Your task to perform on an android device: turn on priority inbox in the gmail app Image 0: 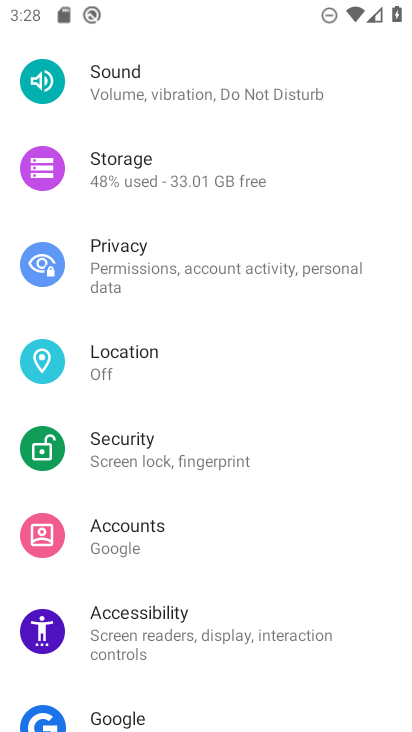
Step 0: drag from (125, 428) to (163, 355)
Your task to perform on an android device: turn on priority inbox in the gmail app Image 1: 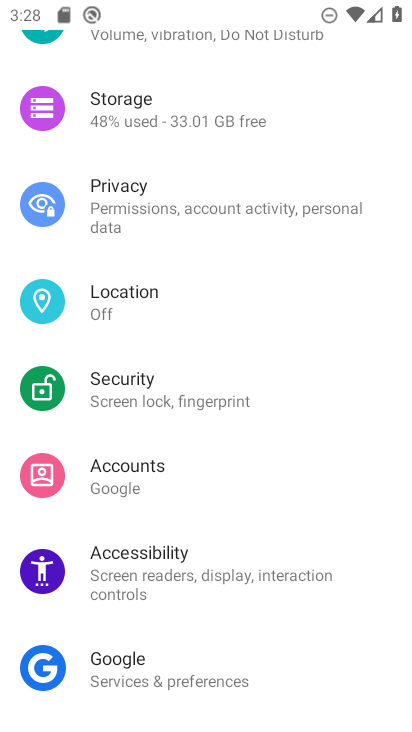
Step 1: press home button
Your task to perform on an android device: turn on priority inbox in the gmail app Image 2: 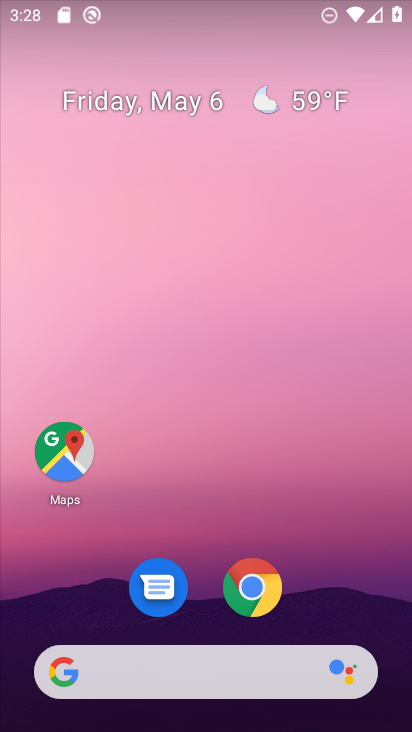
Step 2: click (280, 587)
Your task to perform on an android device: turn on priority inbox in the gmail app Image 3: 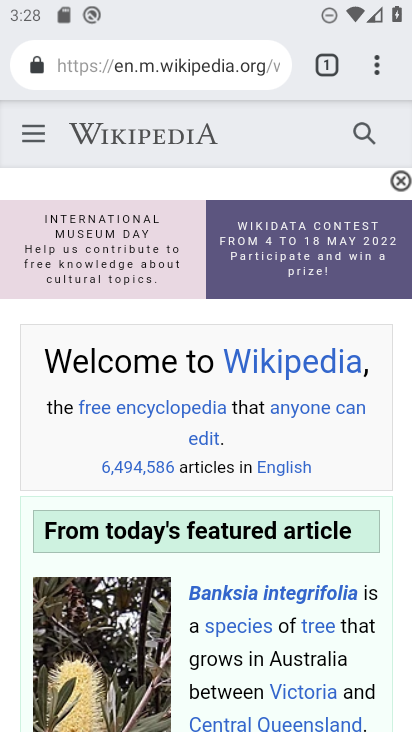
Step 3: press home button
Your task to perform on an android device: turn on priority inbox in the gmail app Image 4: 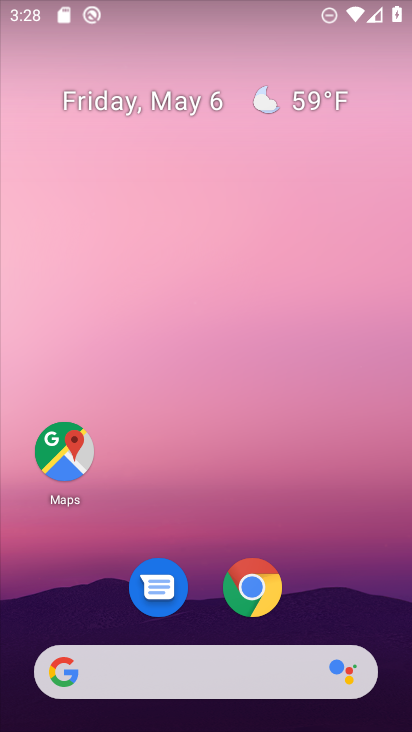
Step 4: drag from (370, 604) to (370, 112)
Your task to perform on an android device: turn on priority inbox in the gmail app Image 5: 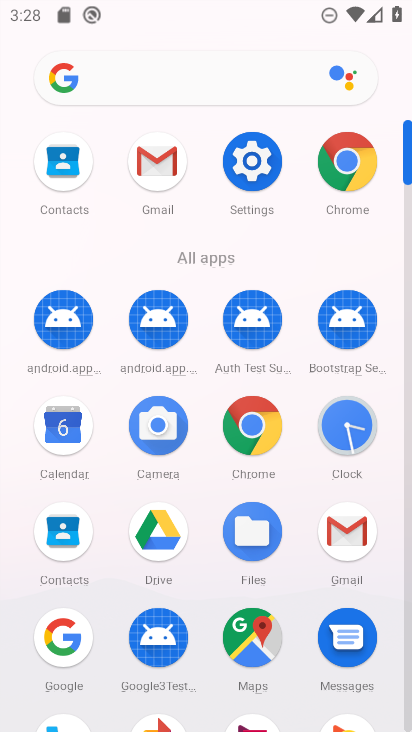
Step 5: click (144, 174)
Your task to perform on an android device: turn on priority inbox in the gmail app Image 6: 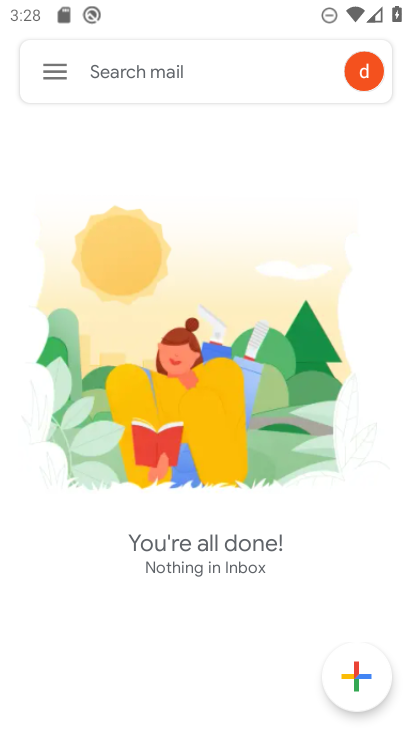
Step 6: click (59, 71)
Your task to perform on an android device: turn on priority inbox in the gmail app Image 7: 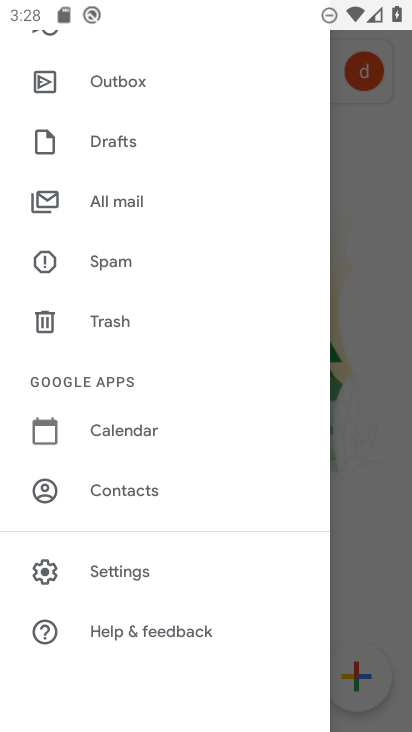
Step 7: click (118, 576)
Your task to perform on an android device: turn on priority inbox in the gmail app Image 8: 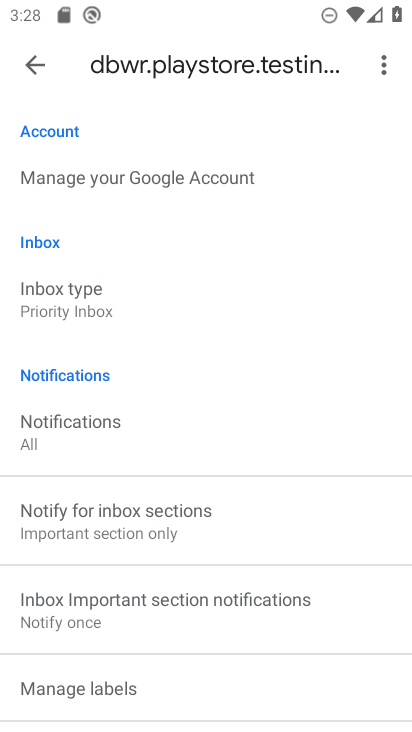
Step 8: task complete